Your task to perform on an android device: Open Google Maps and go to "Timeline" Image 0: 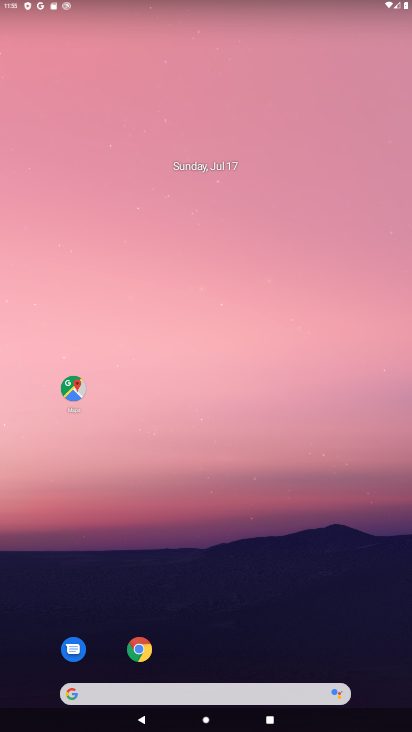
Step 0: click (81, 383)
Your task to perform on an android device: Open Google Maps and go to "Timeline" Image 1: 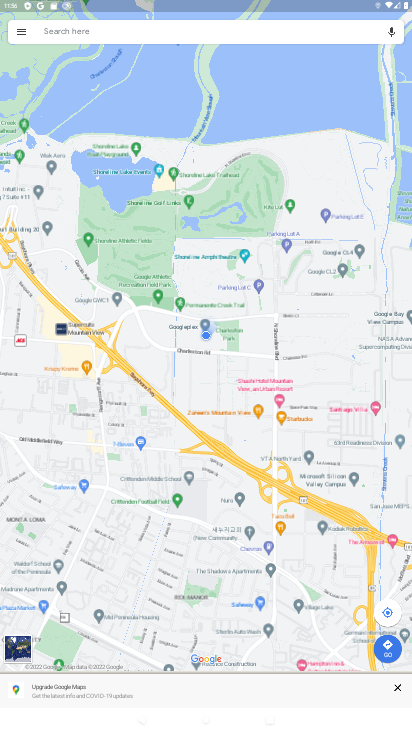
Step 1: click (20, 33)
Your task to perform on an android device: Open Google Maps and go to "Timeline" Image 2: 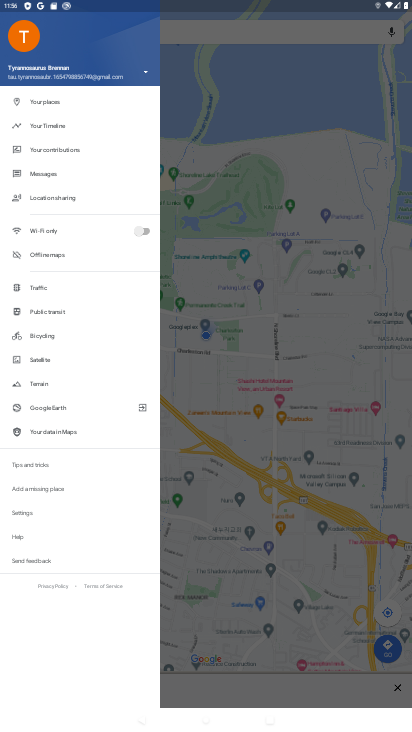
Step 2: click (50, 120)
Your task to perform on an android device: Open Google Maps and go to "Timeline" Image 3: 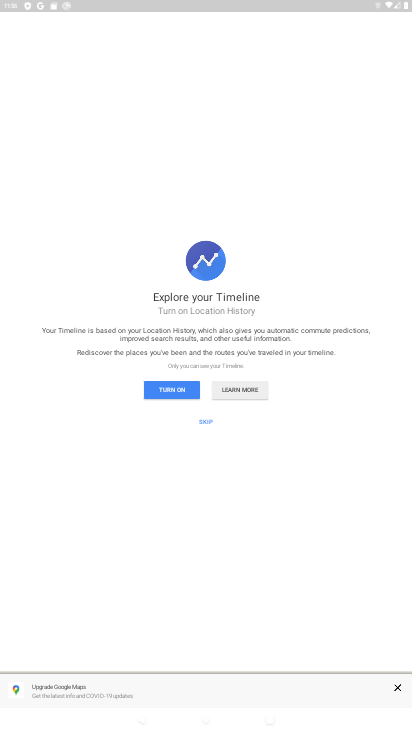
Step 3: click (178, 396)
Your task to perform on an android device: Open Google Maps and go to "Timeline" Image 4: 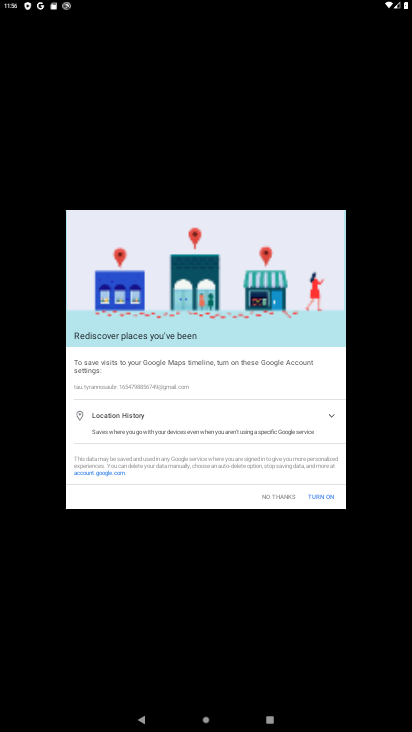
Step 4: click (326, 487)
Your task to perform on an android device: Open Google Maps and go to "Timeline" Image 5: 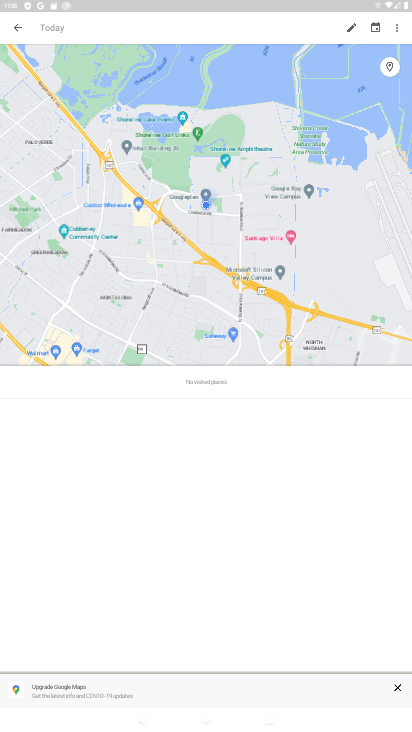
Step 5: task complete